Your task to perform on an android device: Go to accessibility settings Image 0: 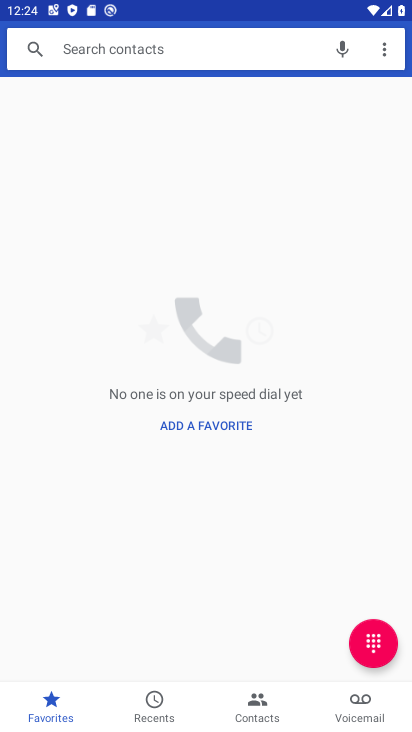
Step 0: press home button
Your task to perform on an android device: Go to accessibility settings Image 1: 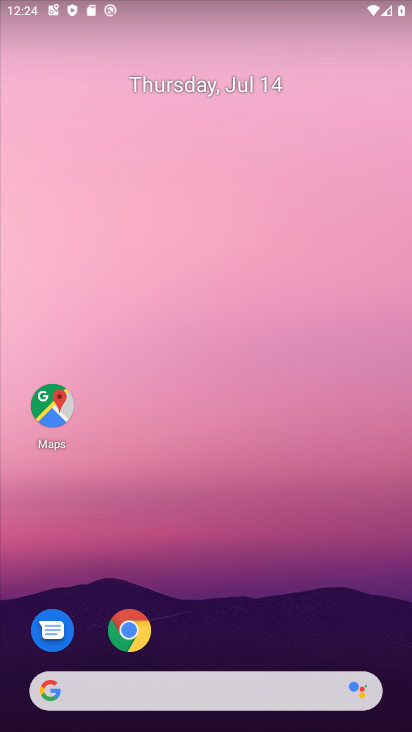
Step 1: drag from (177, 665) to (177, 253)
Your task to perform on an android device: Go to accessibility settings Image 2: 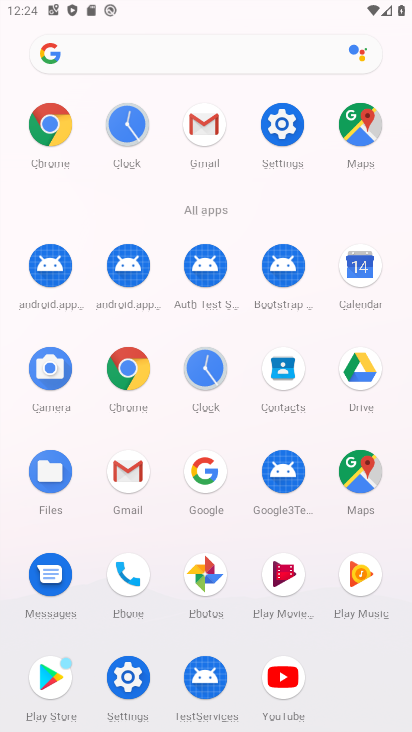
Step 2: click (268, 133)
Your task to perform on an android device: Go to accessibility settings Image 3: 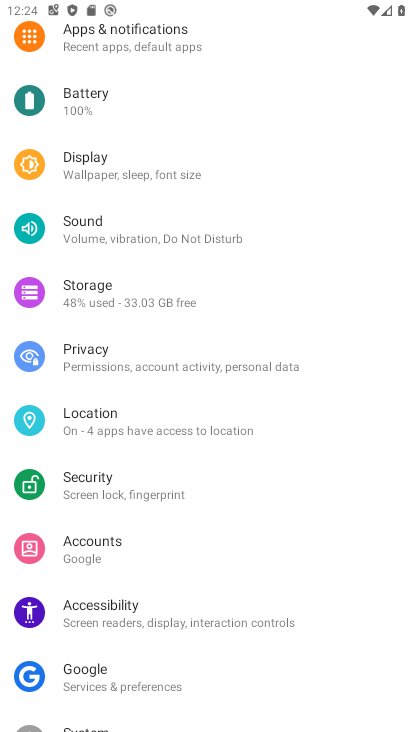
Step 3: click (138, 608)
Your task to perform on an android device: Go to accessibility settings Image 4: 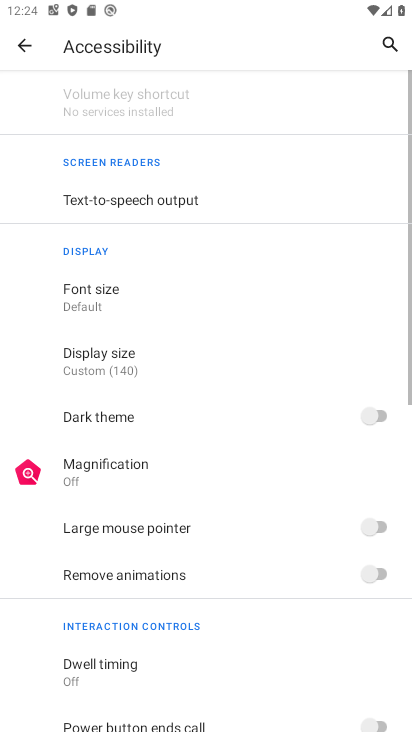
Step 4: task complete